Your task to perform on an android device: Open the calendar app, open the side menu, and click the "Day" option Image 0: 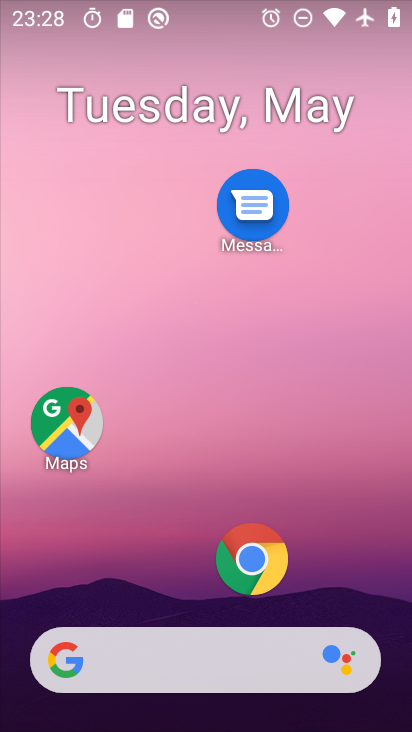
Step 0: drag from (203, 600) to (258, 124)
Your task to perform on an android device: Open the calendar app, open the side menu, and click the "Day" option Image 1: 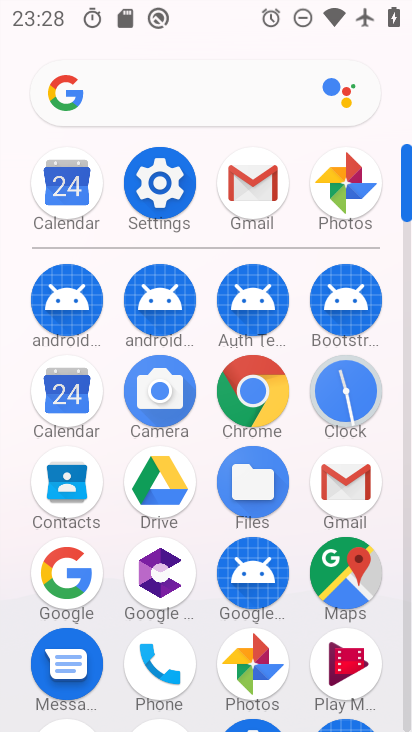
Step 1: click (78, 389)
Your task to perform on an android device: Open the calendar app, open the side menu, and click the "Day" option Image 2: 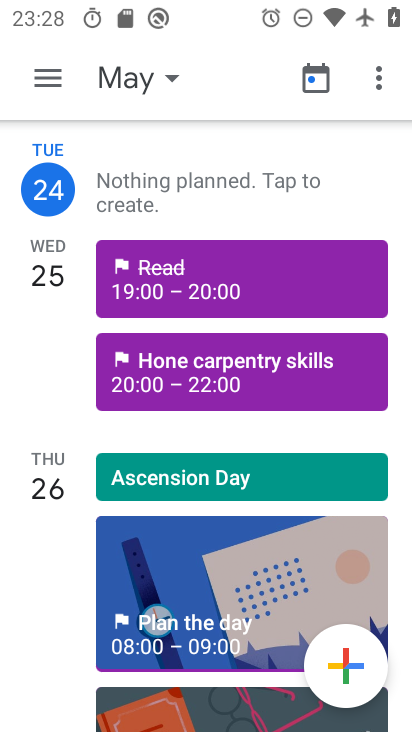
Step 2: click (47, 86)
Your task to perform on an android device: Open the calendar app, open the side menu, and click the "Day" option Image 3: 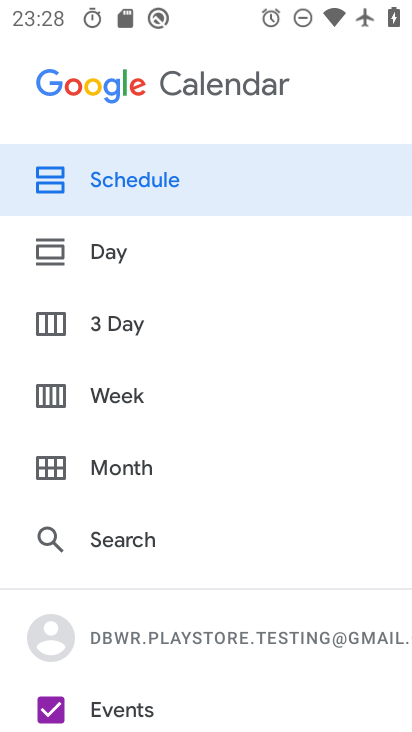
Step 3: click (86, 263)
Your task to perform on an android device: Open the calendar app, open the side menu, and click the "Day" option Image 4: 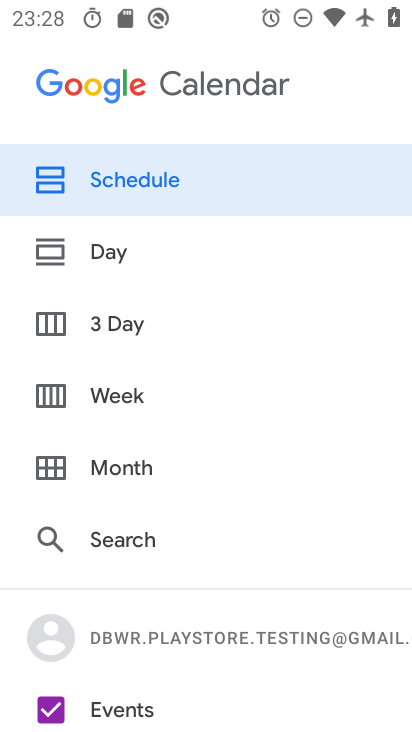
Step 4: click (78, 258)
Your task to perform on an android device: Open the calendar app, open the side menu, and click the "Day" option Image 5: 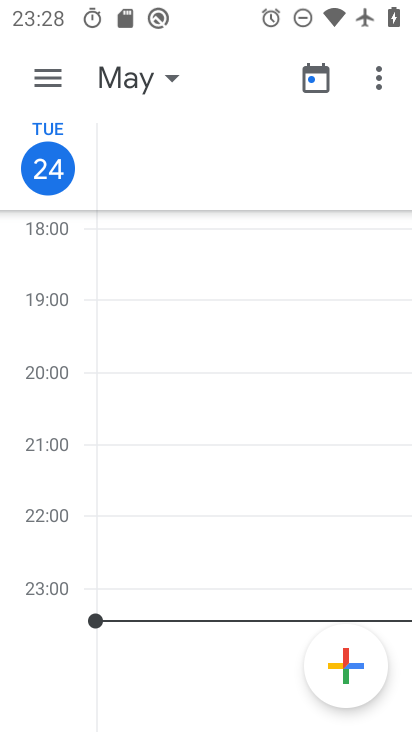
Step 5: task complete